Your task to perform on an android device: Open Maps and search for coffee Image 0: 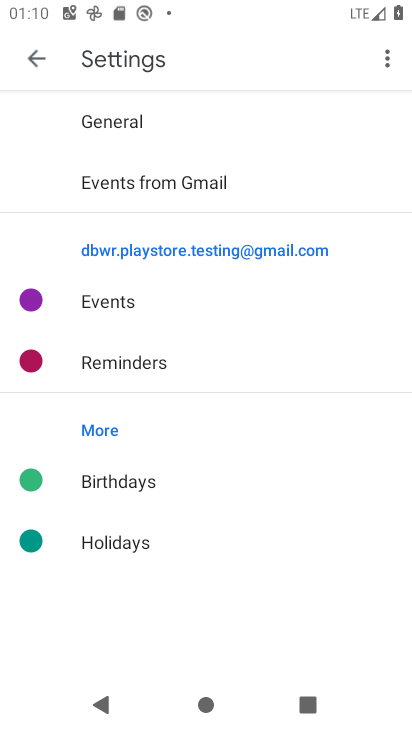
Step 0: press home button
Your task to perform on an android device: Open Maps and search for coffee Image 1: 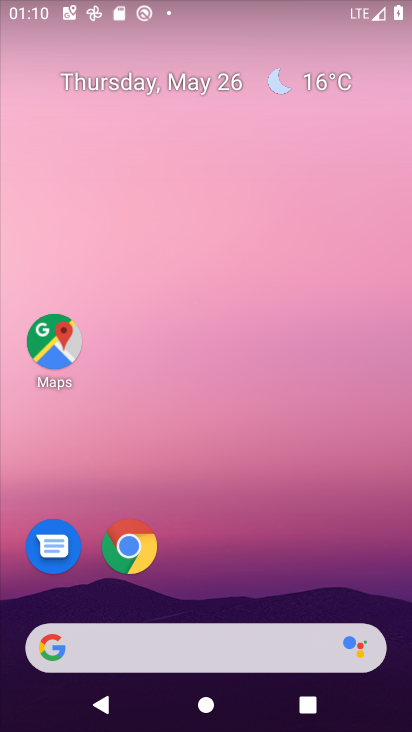
Step 1: click (55, 344)
Your task to perform on an android device: Open Maps and search for coffee Image 2: 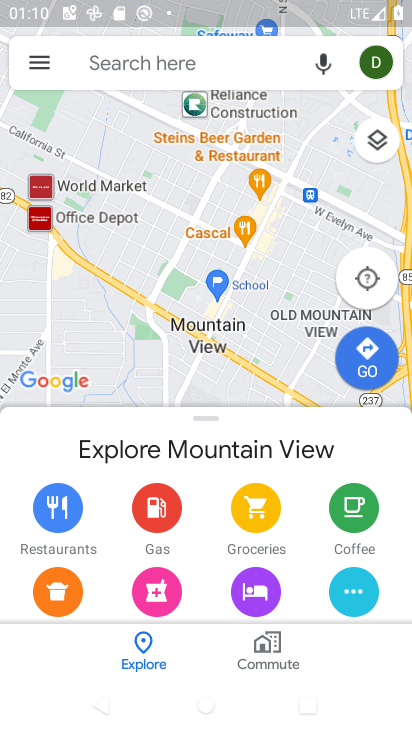
Step 2: click (106, 69)
Your task to perform on an android device: Open Maps and search for coffee Image 3: 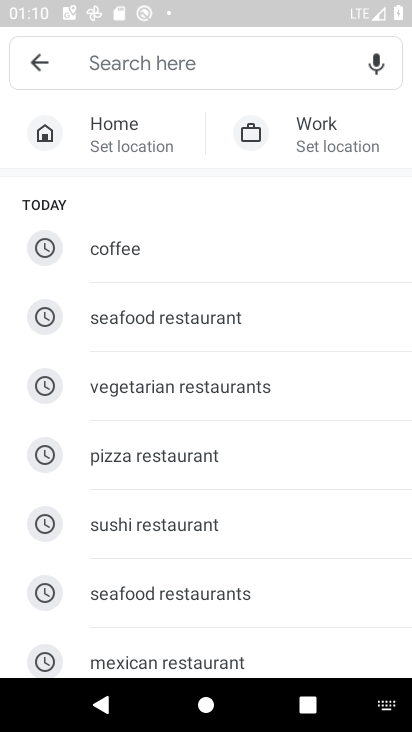
Step 3: type "coffee"
Your task to perform on an android device: Open Maps and search for coffee Image 4: 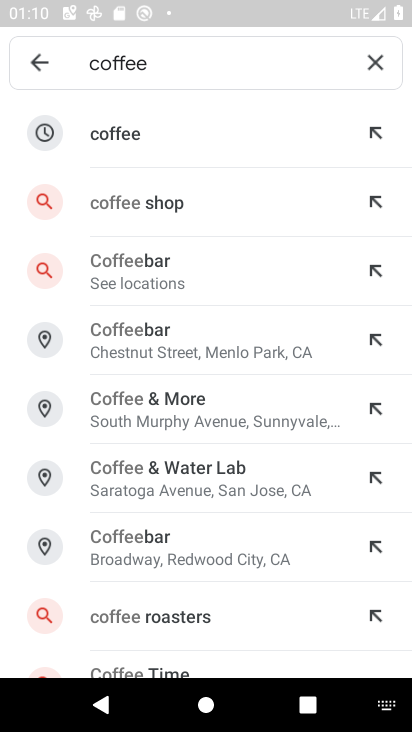
Step 4: click (160, 127)
Your task to perform on an android device: Open Maps and search for coffee Image 5: 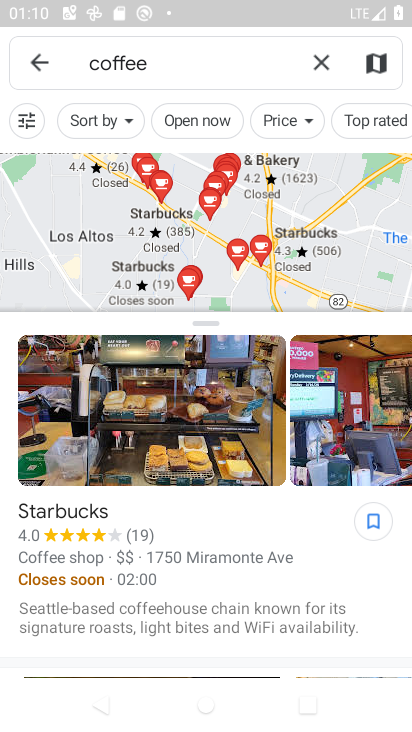
Step 5: task complete